Your task to perform on an android device: What's a good restaurant in Phoenix? Image 0: 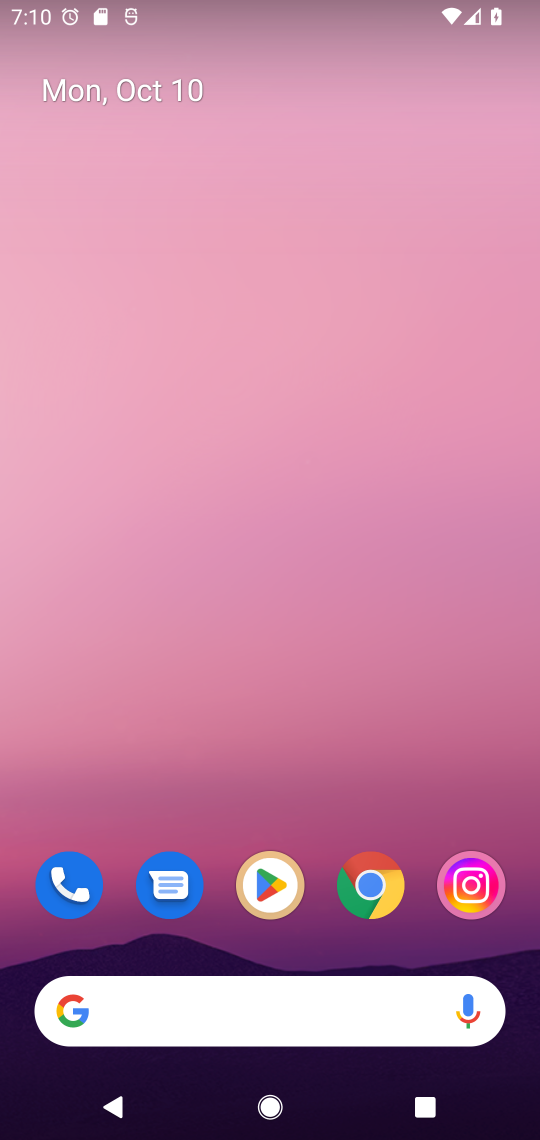
Step 0: click (368, 912)
Your task to perform on an android device: What's a good restaurant in Phoenix? Image 1: 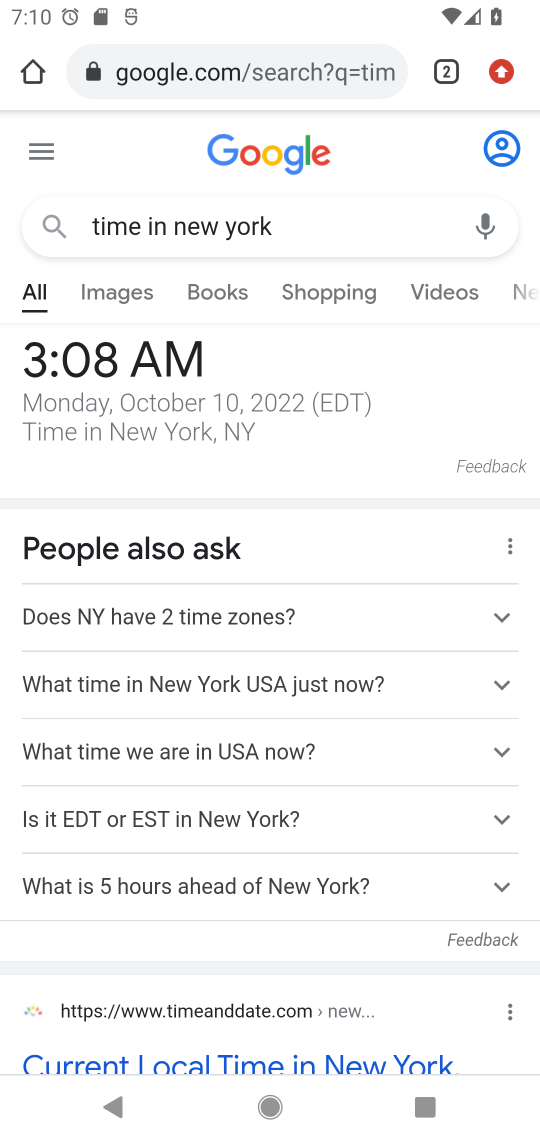
Step 1: click (276, 73)
Your task to perform on an android device: What's a good restaurant in Phoenix? Image 2: 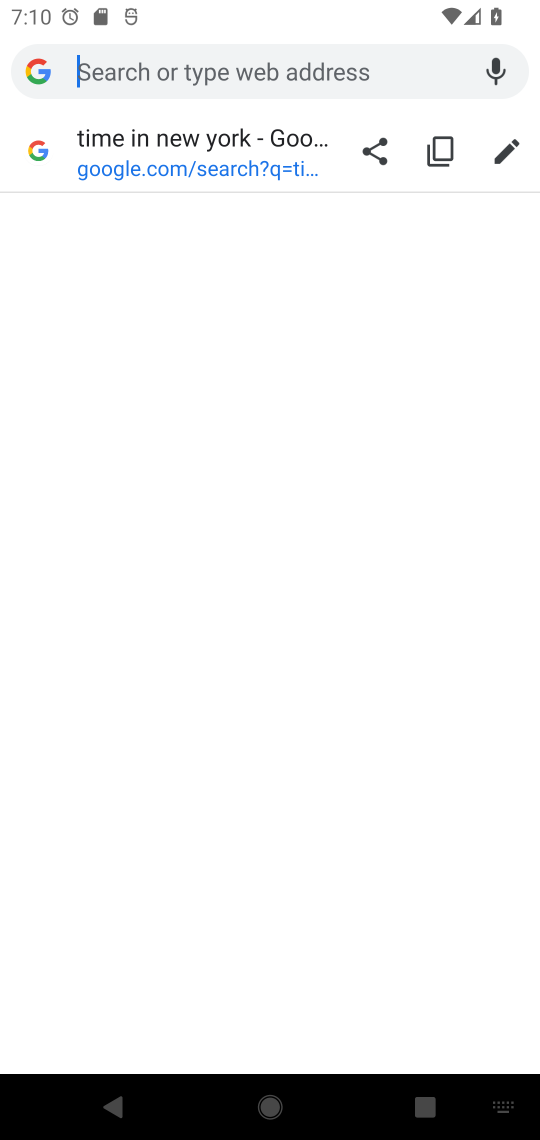
Step 2: type "good restaurant in Phoenix"
Your task to perform on an android device: What's a good restaurant in Phoenix? Image 3: 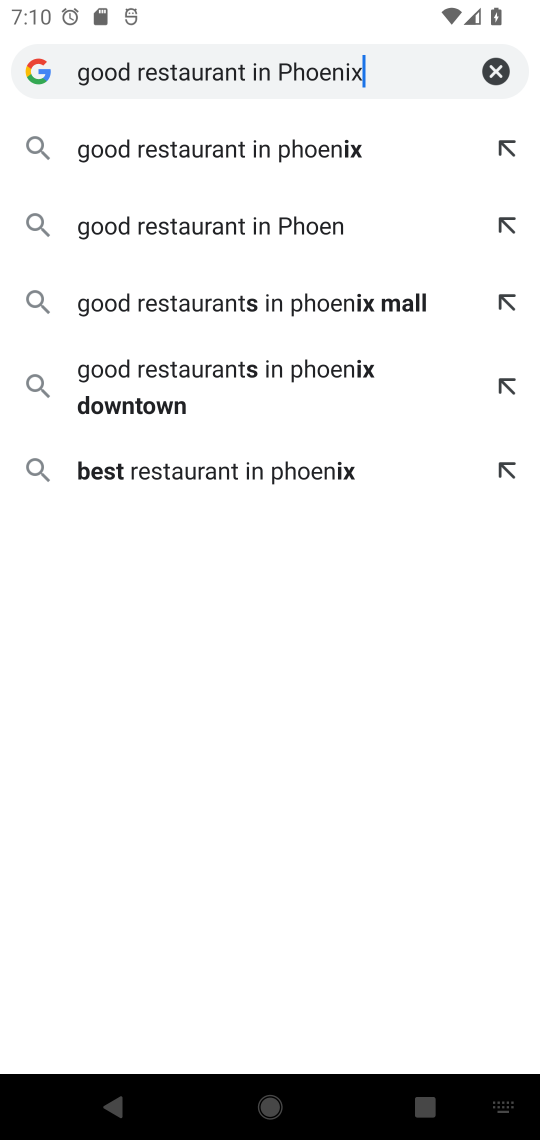
Step 3: type ""
Your task to perform on an android device: What's a good restaurant in Phoenix? Image 4: 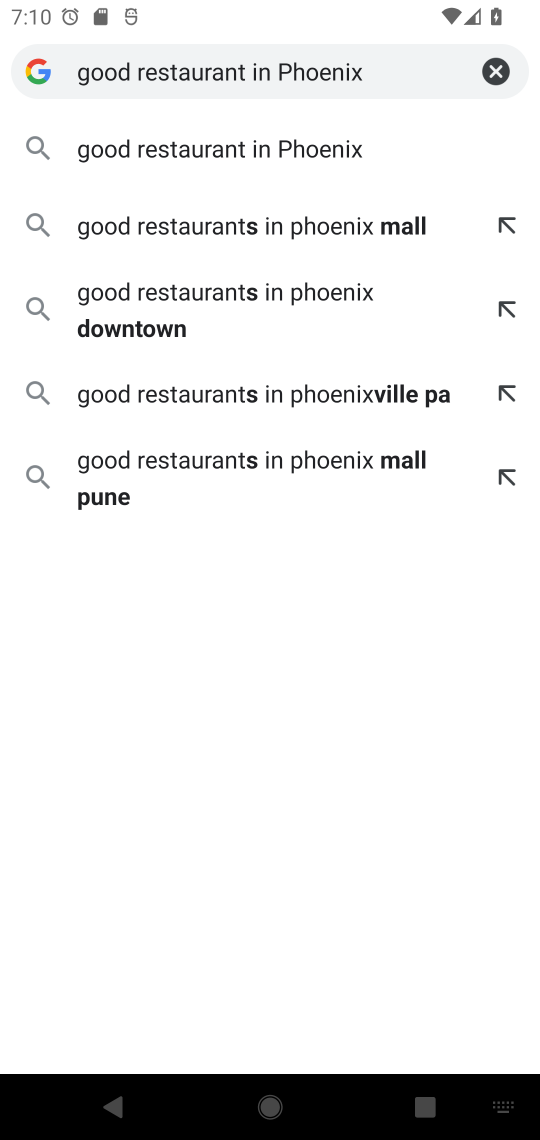
Step 4: click (270, 154)
Your task to perform on an android device: What's a good restaurant in Phoenix? Image 5: 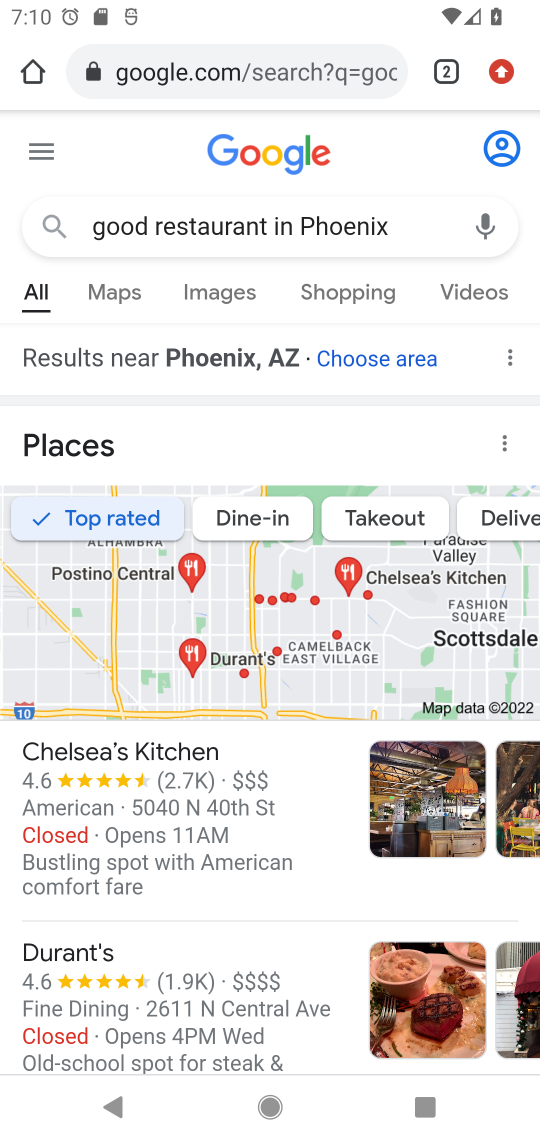
Step 5: drag from (204, 867) to (196, 439)
Your task to perform on an android device: What's a good restaurant in Phoenix? Image 6: 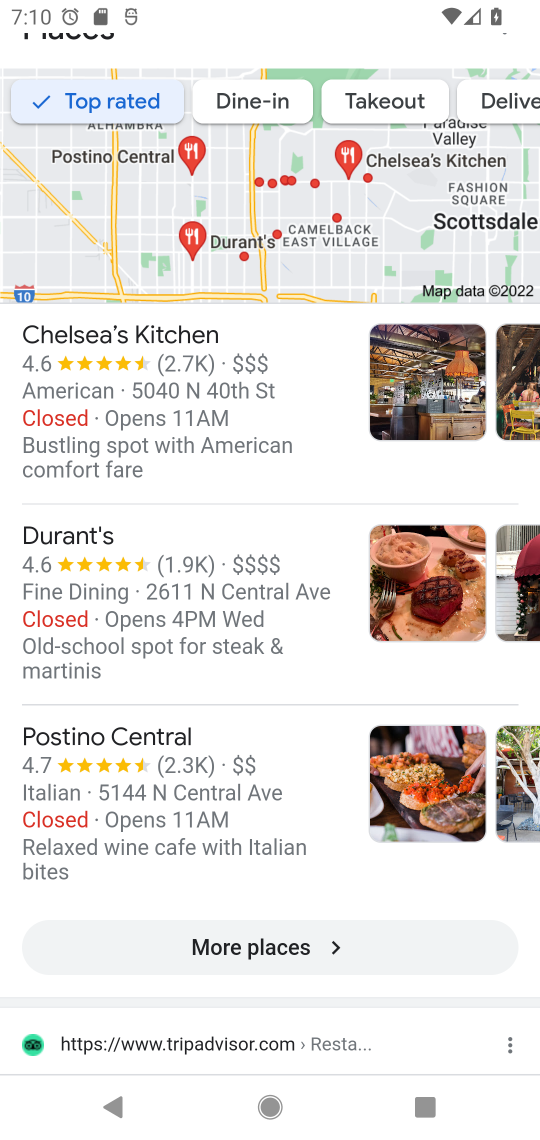
Step 6: click (305, 1000)
Your task to perform on an android device: What's a good restaurant in Phoenix? Image 7: 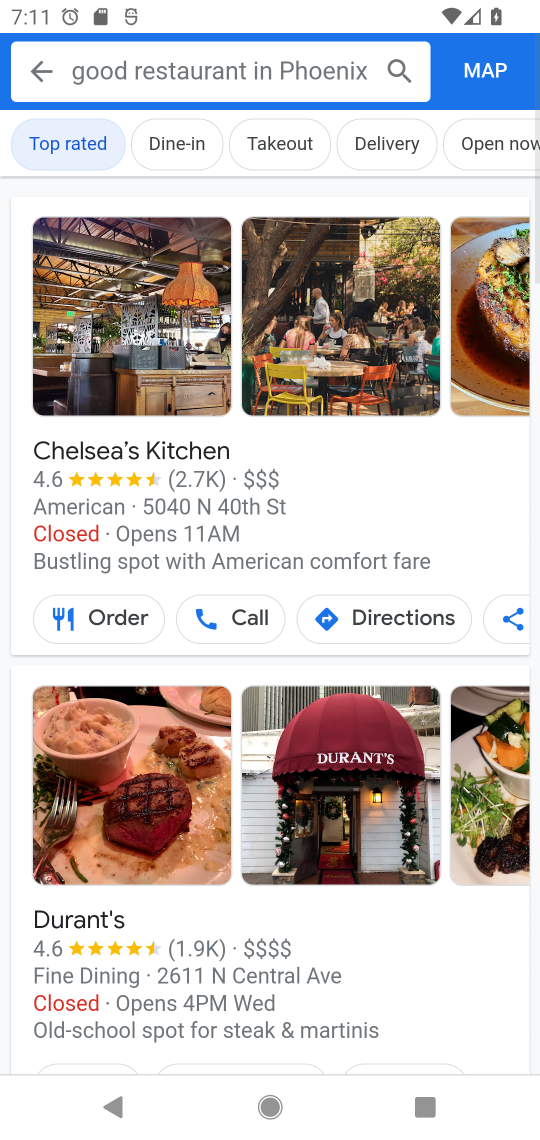
Step 7: task complete